Your task to perform on an android device: set the timer Image 0: 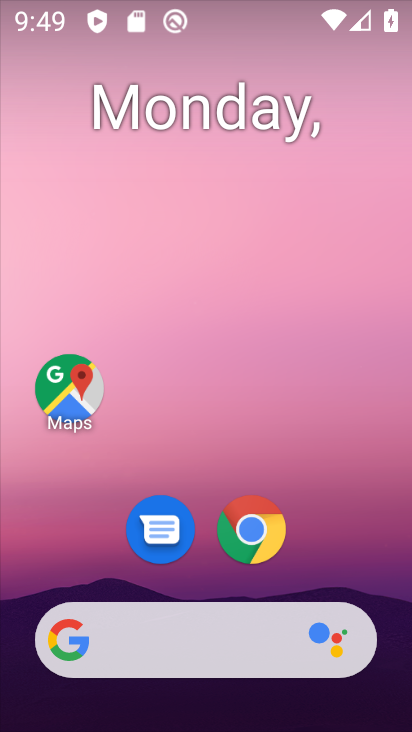
Step 0: drag from (336, 551) to (309, 54)
Your task to perform on an android device: set the timer Image 1: 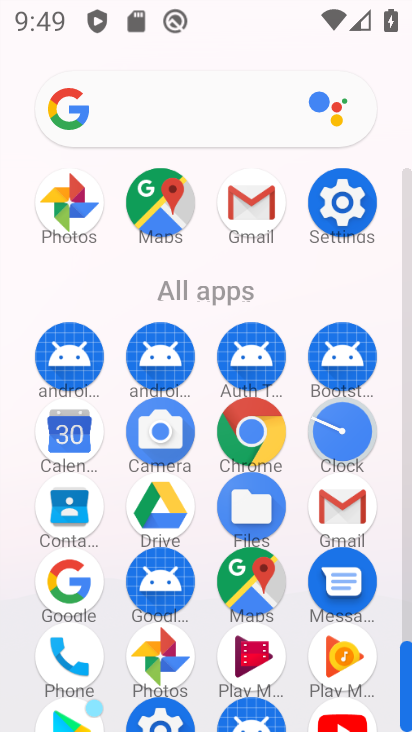
Step 1: click (342, 433)
Your task to perform on an android device: set the timer Image 2: 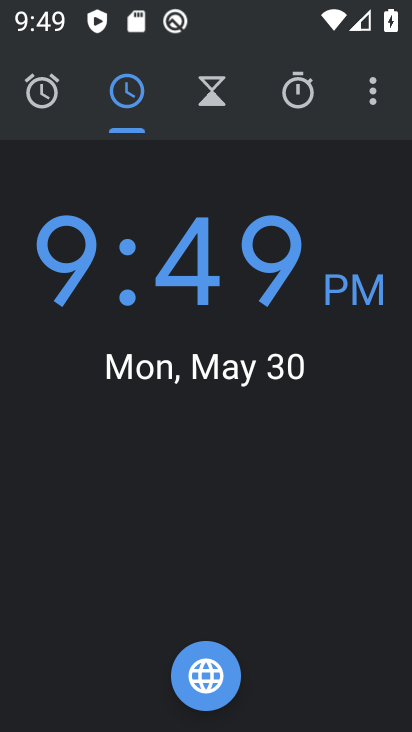
Step 2: click (216, 98)
Your task to perform on an android device: set the timer Image 3: 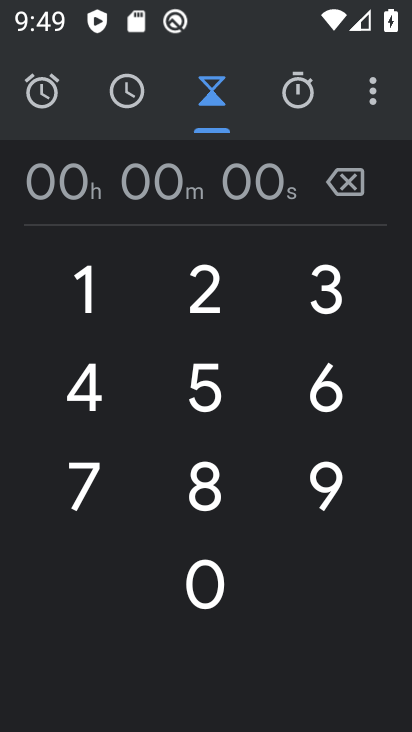
Step 3: type "1357"
Your task to perform on an android device: set the timer Image 4: 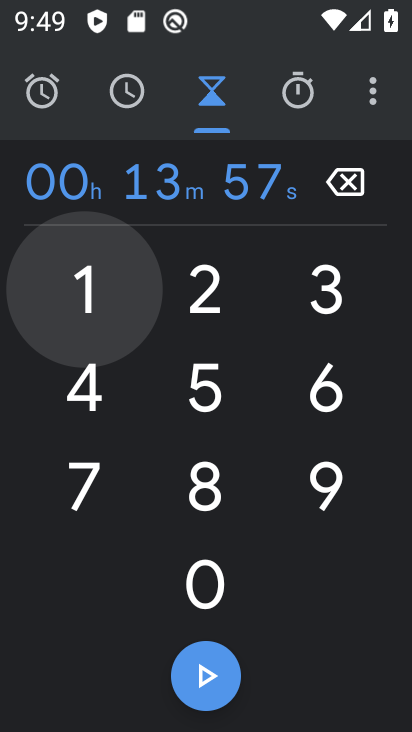
Step 4: click (205, 689)
Your task to perform on an android device: set the timer Image 5: 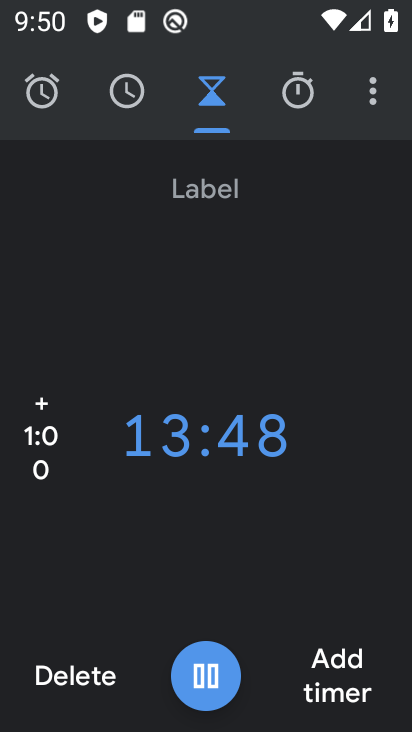
Step 5: click (210, 675)
Your task to perform on an android device: set the timer Image 6: 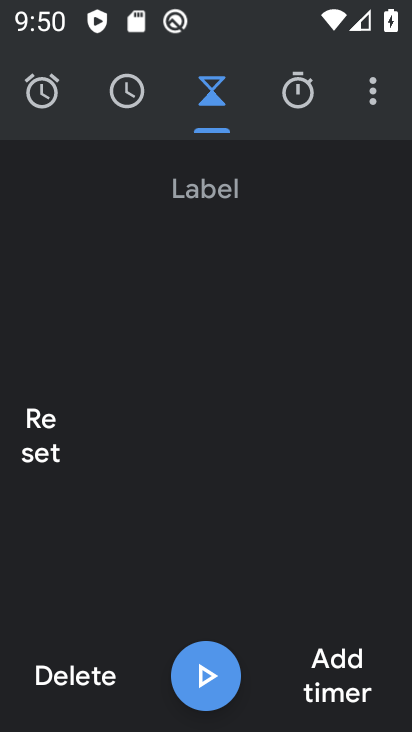
Step 6: task complete